Your task to perform on an android device: add a label to a message in the gmail app Image 0: 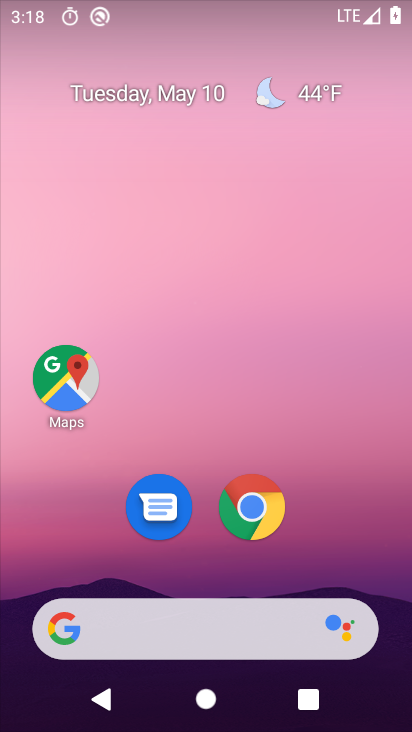
Step 0: drag from (193, 574) to (252, 226)
Your task to perform on an android device: add a label to a message in the gmail app Image 1: 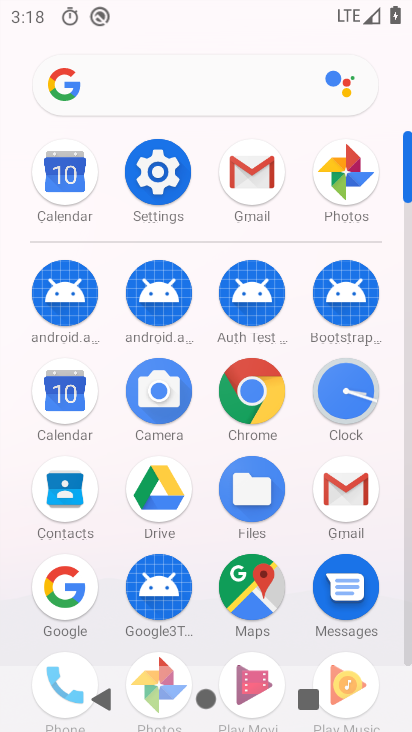
Step 1: click (265, 184)
Your task to perform on an android device: add a label to a message in the gmail app Image 2: 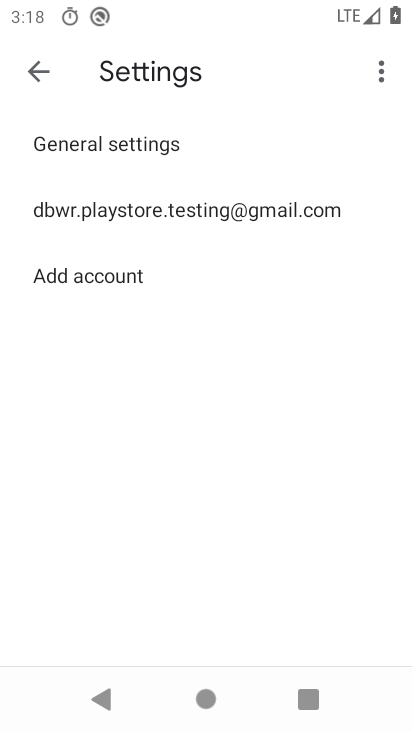
Step 2: click (35, 71)
Your task to perform on an android device: add a label to a message in the gmail app Image 3: 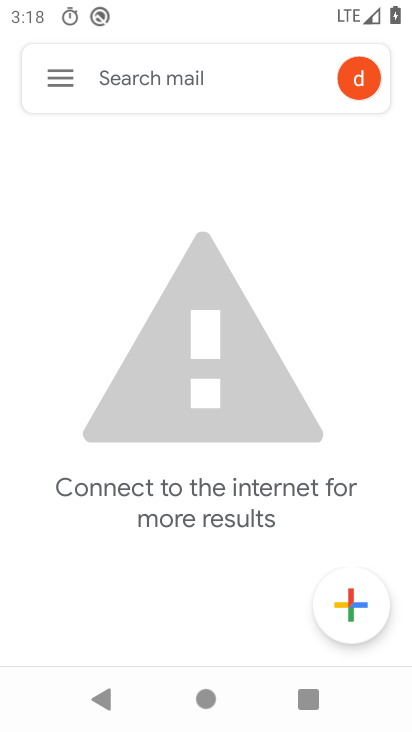
Step 3: click (47, 85)
Your task to perform on an android device: add a label to a message in the gmail app Image 4: 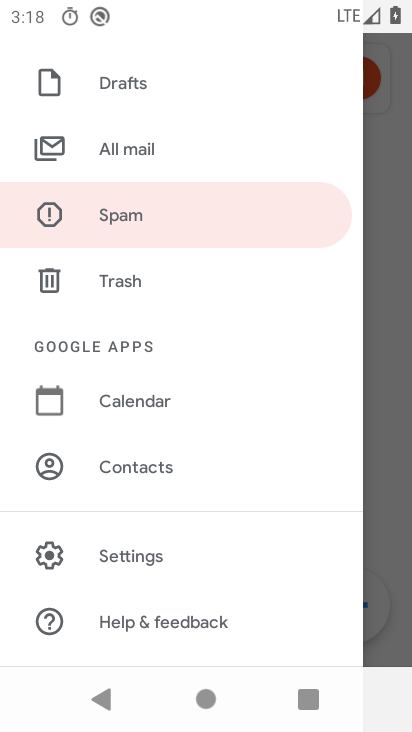
Step 4: drag from (201, 117) to (173, 479)
Your task to perform on an android device: add a label to a message in the gmail app Image 5: 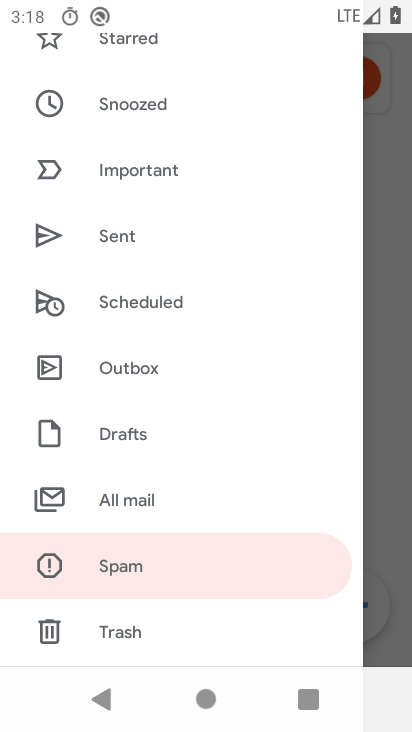
Step 5: drag from (182, 89) to (211, 445)
Your task to perform on an android device: add a label to a message in the gmail app Image 6: 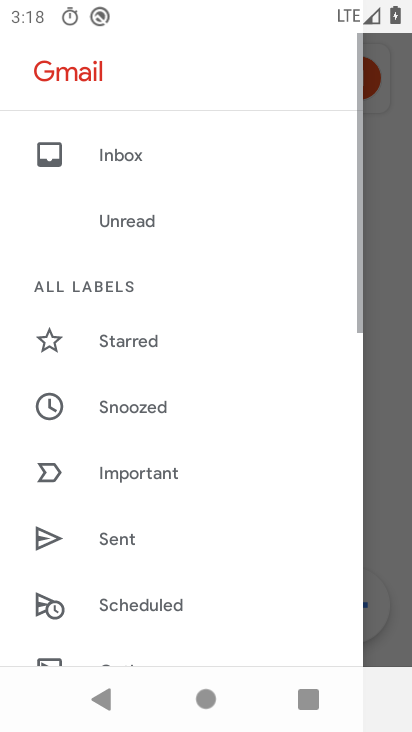
Step 6: click (139, 149)
Your task to perform on an android device: add a label to a message in the gmail app Image 7: 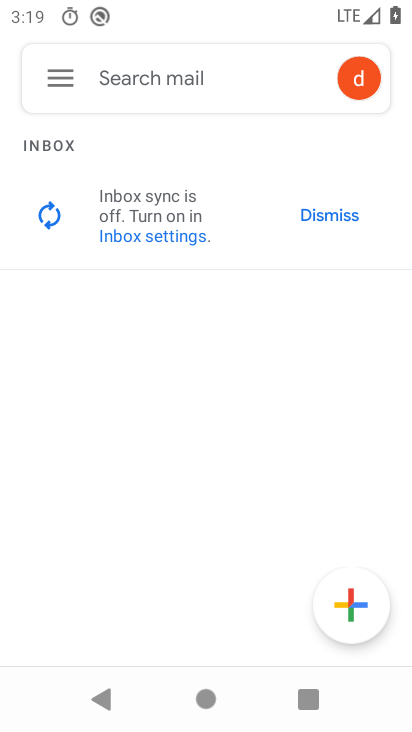
Step 7: task complete